Your task to perform on an android device: change timer sound Image 0: 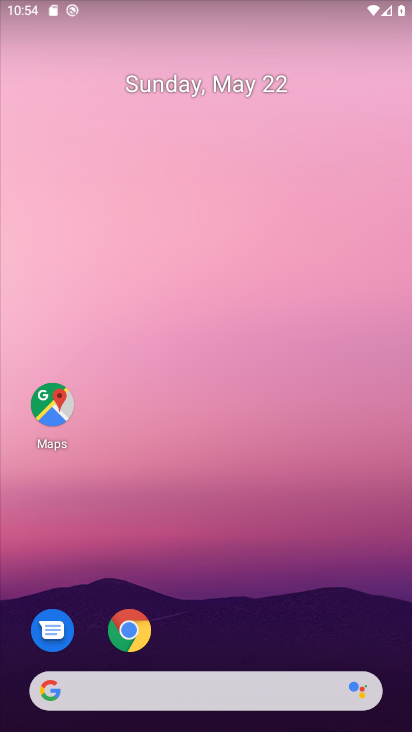
Step 0: drag from (262, 435) to (284, 334)
Your task to perform on an android device: change timer sound Image 1: 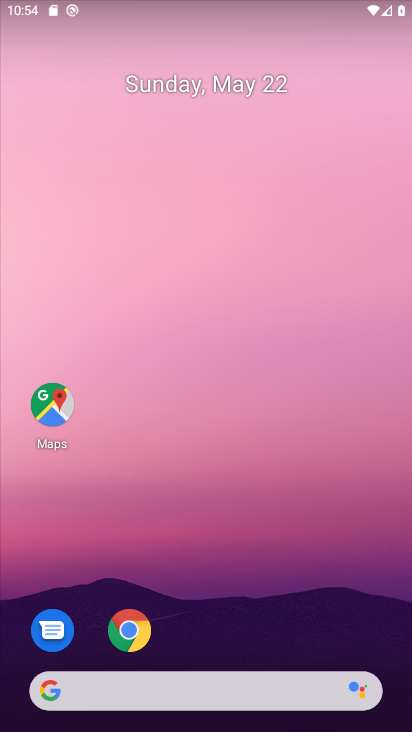
Step 1: drag from (210, 650) to (262, 237)
Your task to perform on an android device: change timer sound Image 2: 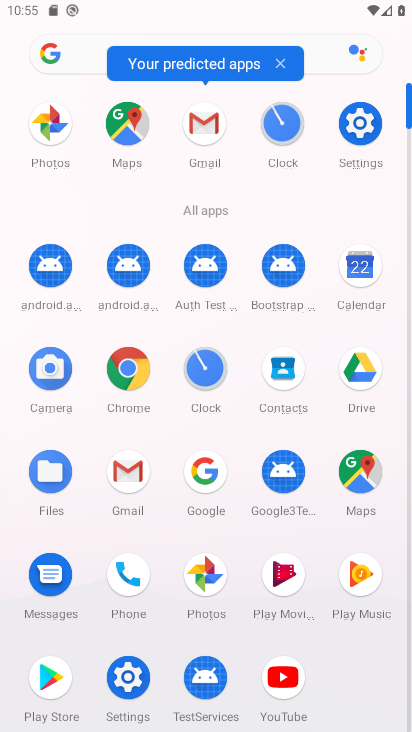
Step 2: click (205, 368)
Your task to perform on an android device: change timer sound Image 3: 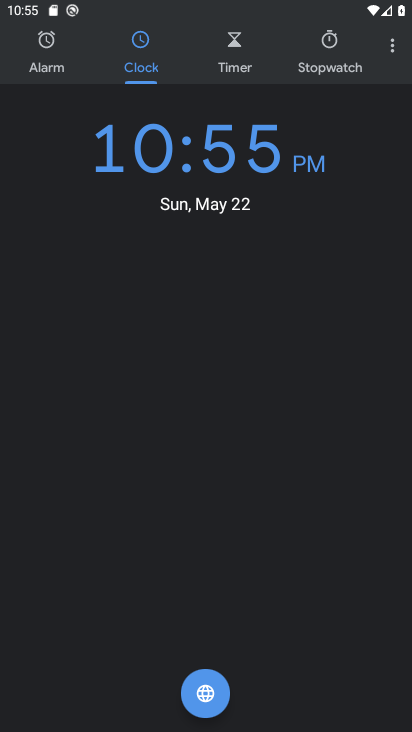
Step 3: click (391, 50)
Your task to perform on an android device: change timer sound Image 4: 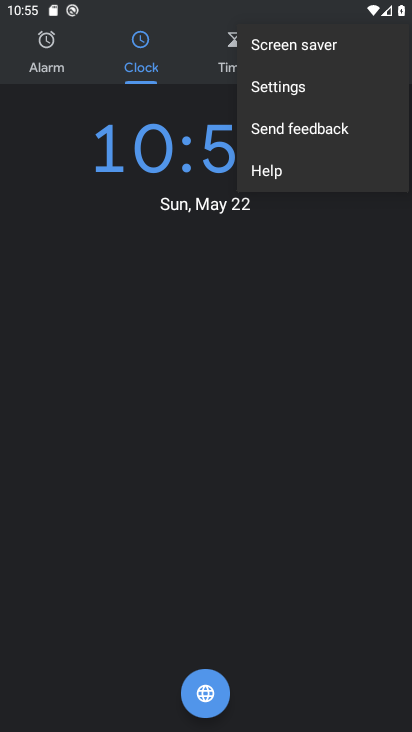
Step 4: click (308, 93)
Your task to perform on an android device: change timer sound Image 5: 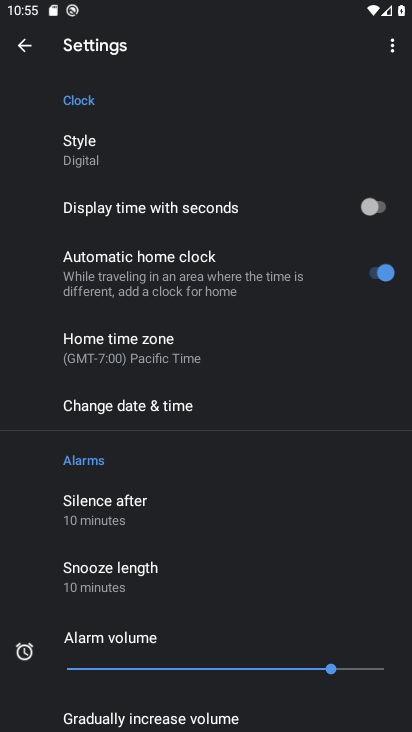
Step 5: drag from (177, 595) to (206, 205)
Your task to perform on an android device: change timer sound Image 6: 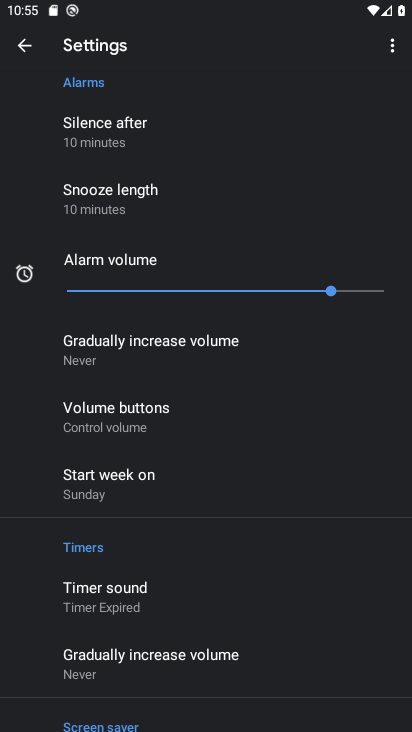
Step 6: click (108, 601)
Your task to perform on an android device: change timer sound Image 7: 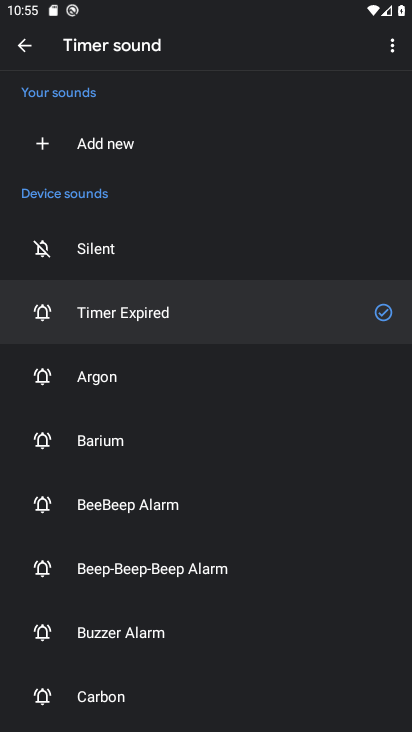
Step 7: click (150, 261)
Your task to perform on an android device: change timer sound Image 8: 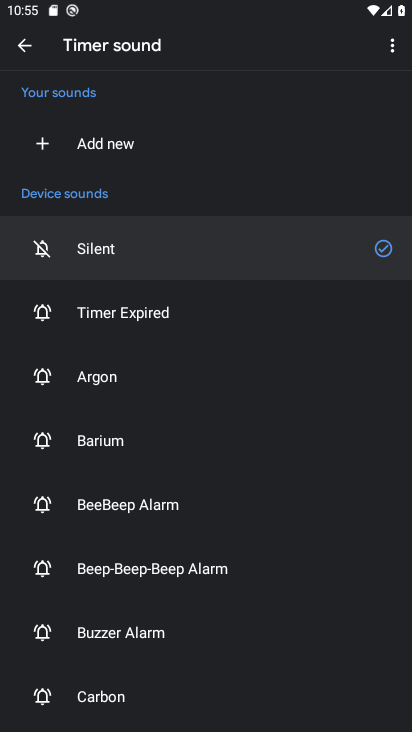
Step 8: task complete